Your task to perform on an android device: turn off location Image 0: 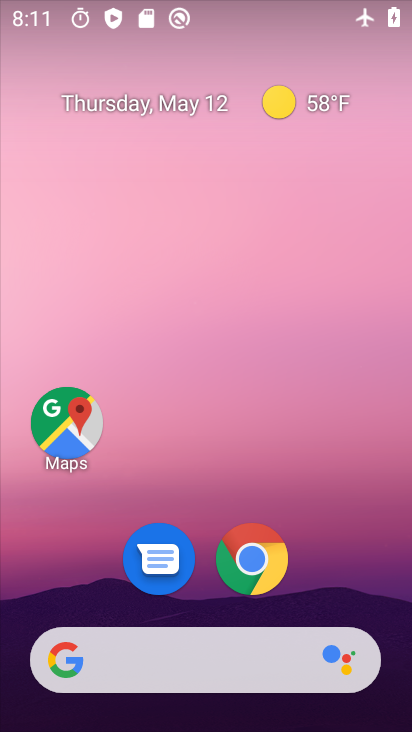
Step 0: drag from (329, 596) to (227, 57)
Your task to perform on an android device: turn off location Image 1: 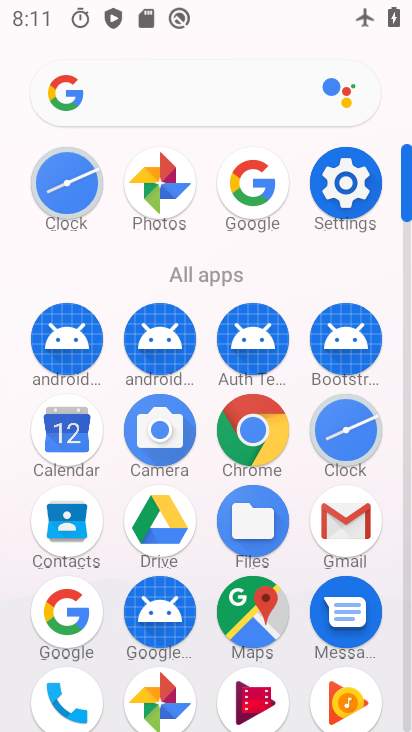
Step 1: click (348, 180)
Your task to perform on an android device: turn off location Image 2: 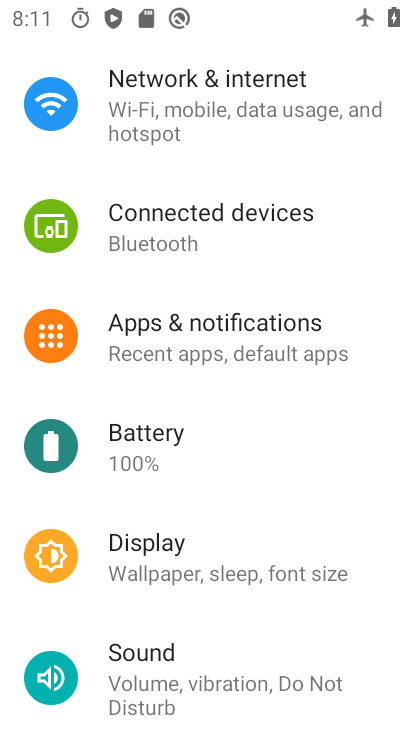
Step 2: drag from (210, 536) to (277, 428)
Your task to perform on an android device: turn off location Image 3: 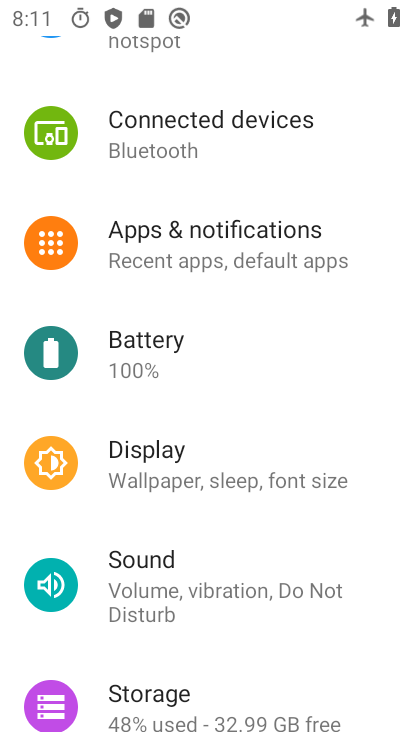
Step 3: drag from (203, 633) to (265, 527)
Your task to perform on an android device: turn off location Image 4: 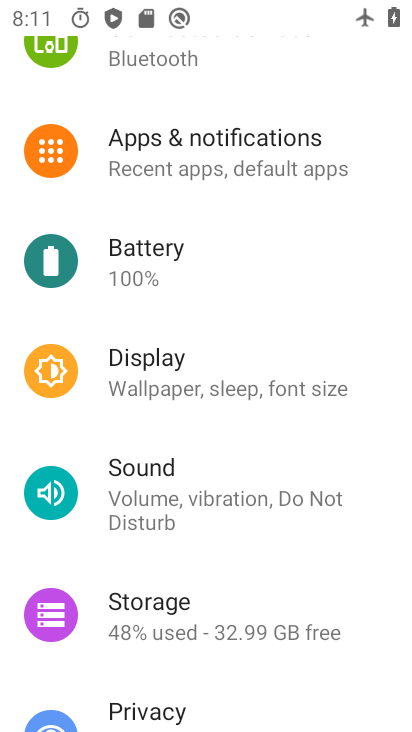
Step 4: drag from (208, 595) to (278, 478)
Your task to perform on an android device: turn off location Image 5: 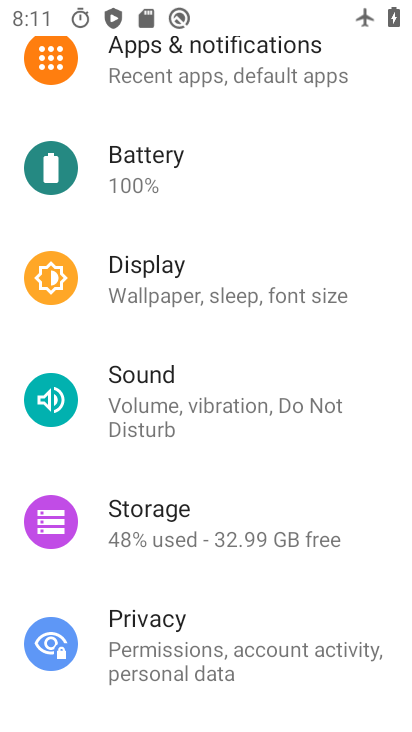
Step 5: drag from (210, 586) to (287, 468)
Your task to perform on an android device: turn off location Image 6: 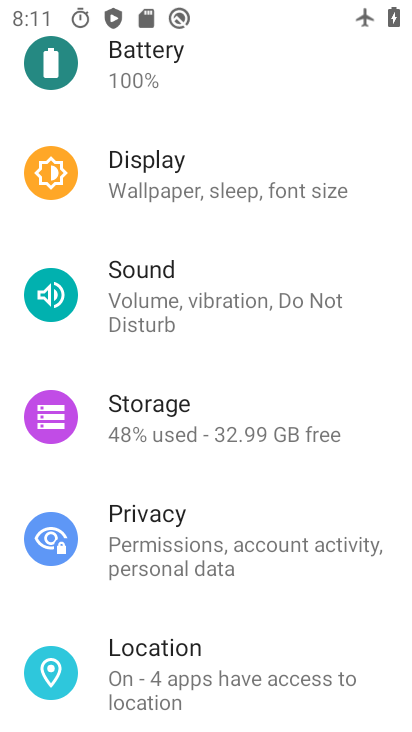
Step 6: drag from (203, 605) to (294, 470)
Your task to perform on an android device: turn off location Image 7: 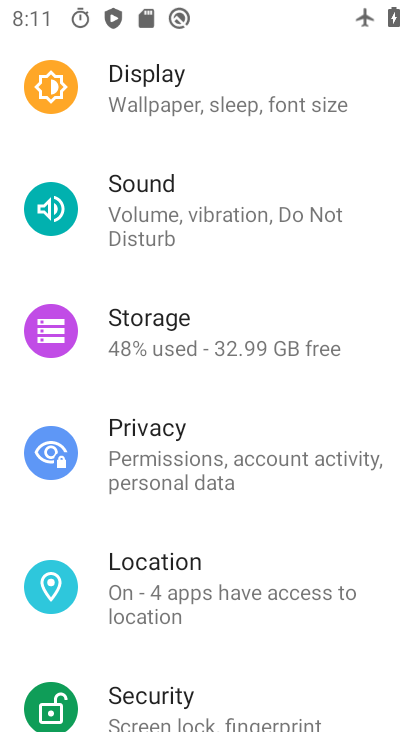
Step 7: click (170, 581)
Your task to perform on an android device: turn off location Image 8: 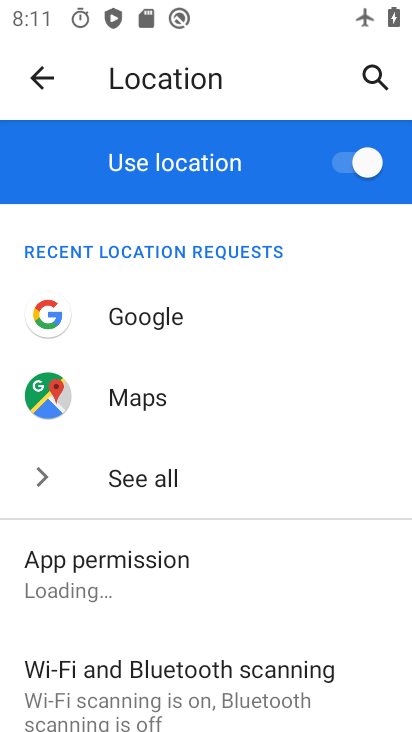
Step 8: click (373, 162)
Your task to perform on an android device: turn off location Image 9: 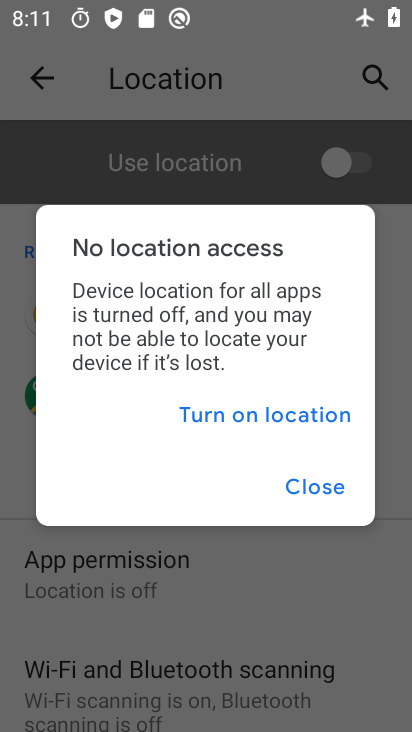
Step 9: click (316, 492)
Your task to perform on an android device: turn off location Image 10: 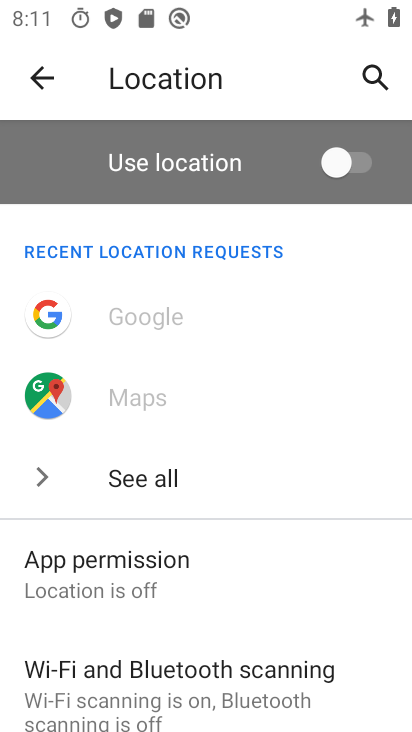
Step 10: task complete